Your task to perform on an android device: toggle notification dots Image 0: 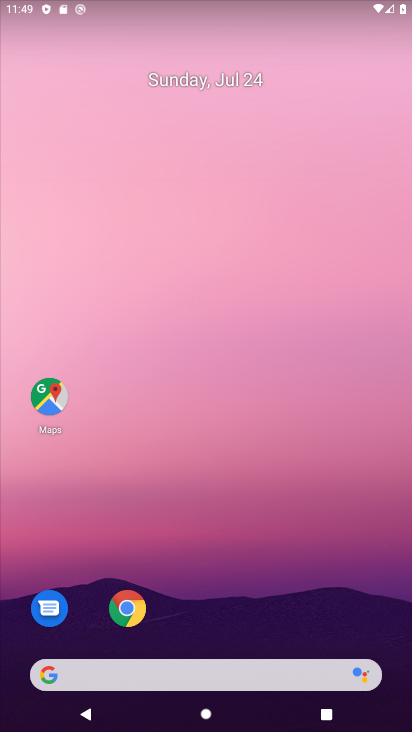
Step 0: drag from (19, 674) to (308, 121)
Your task to perform on an android device: toggle notification dots Image 1: 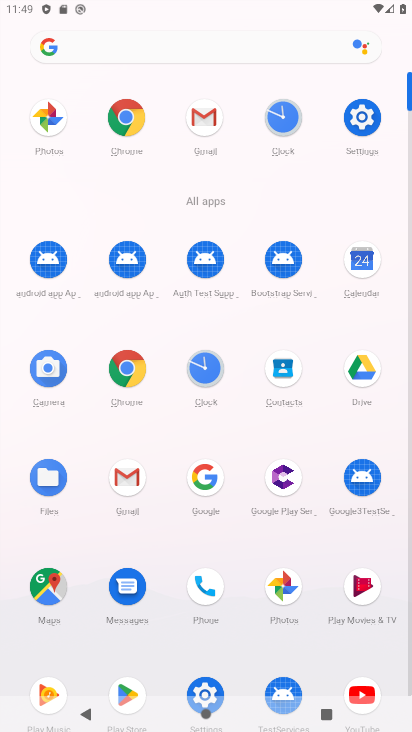
Step 1: click (357, 123)
Your task to perform on an android device: toggle notification dots Image 2: 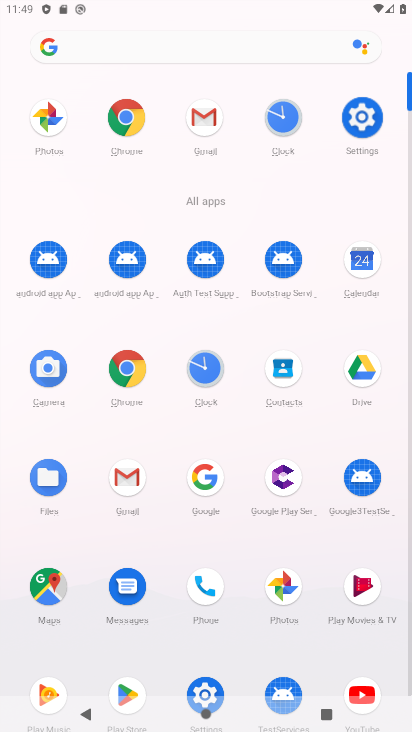
Step 2: click (261, 198)
Your task to perform on an android device: toggle notification dots Image 3: 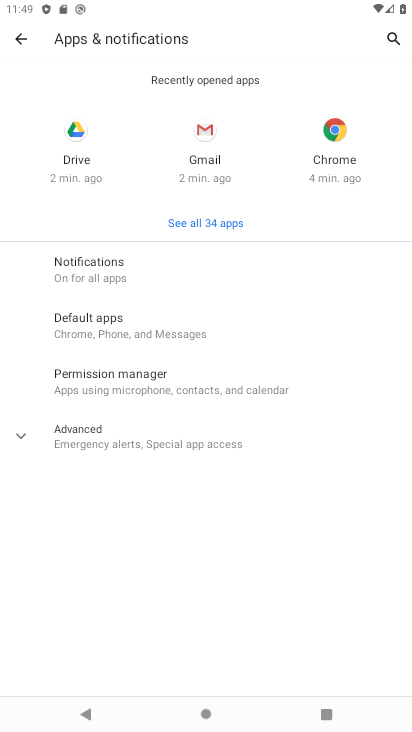
Step 3: click (125, 280)
Your task to perform on an android device: toggle notification dots Image 4: 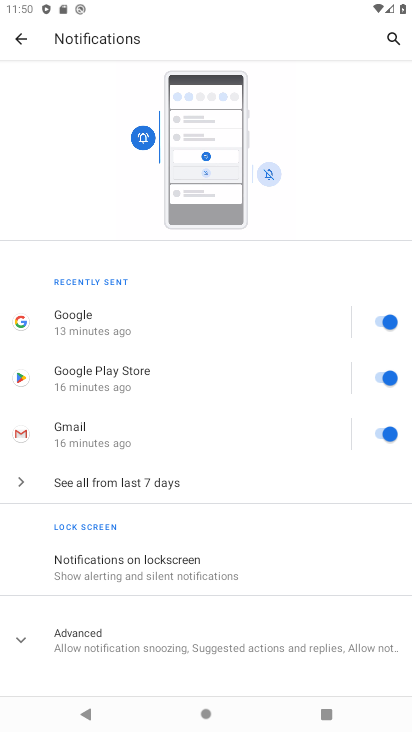
Step 4: click (178, 632)
Your task to perform on an android device: toggle notification dots Image 5: 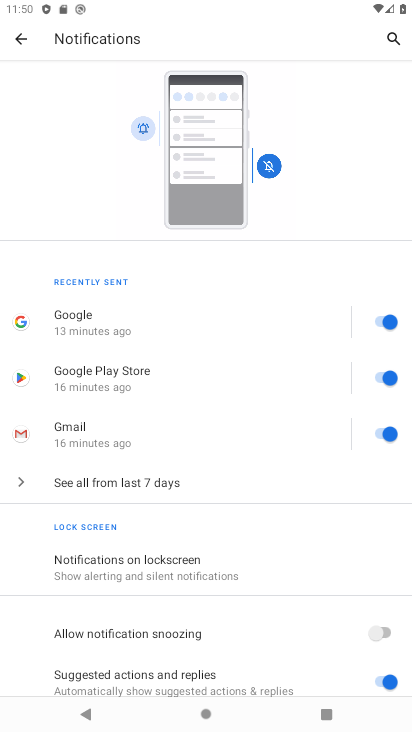
Step 5: drag from (46, 502) to (193, 246)
Your task to perform on an android device: toggle notification dots Image 6: 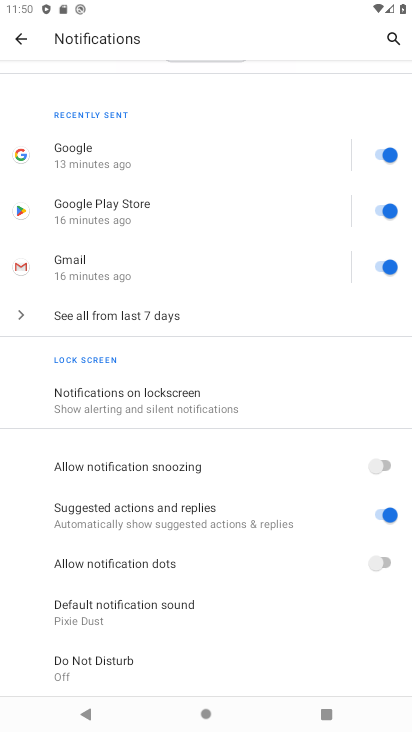
Step 6: click (381, 560)
Your task to perform on an android device: toggle notification dots Image 7: 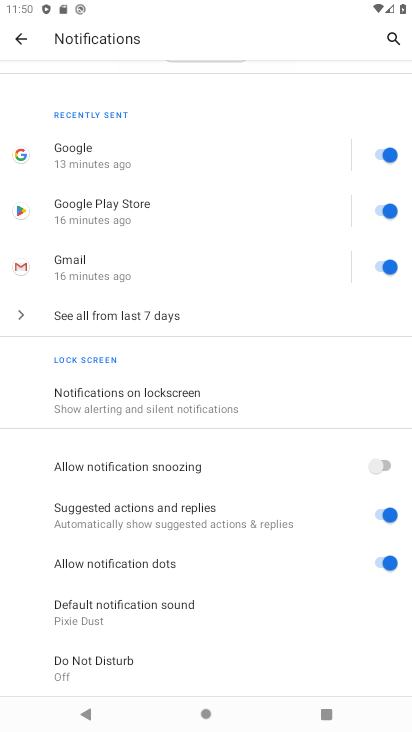
Step 7: task complete